Your task to perform on an android device: find photos in the google photos app Image 0: 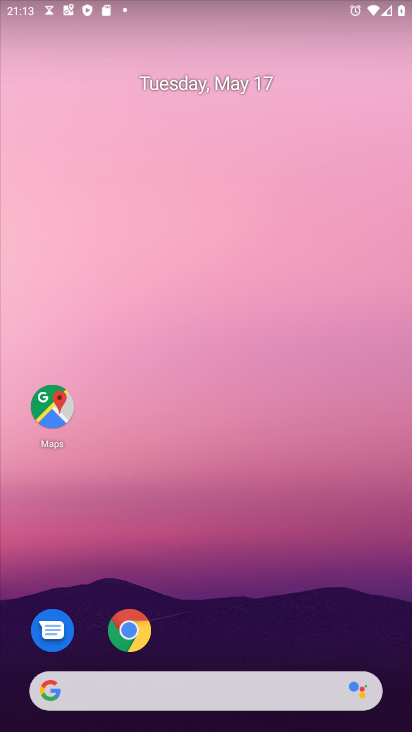
Step 0: drag from (205, 553) to (202, 113)
Your task to perform on an android device: find photos in the google photos app Image 1: 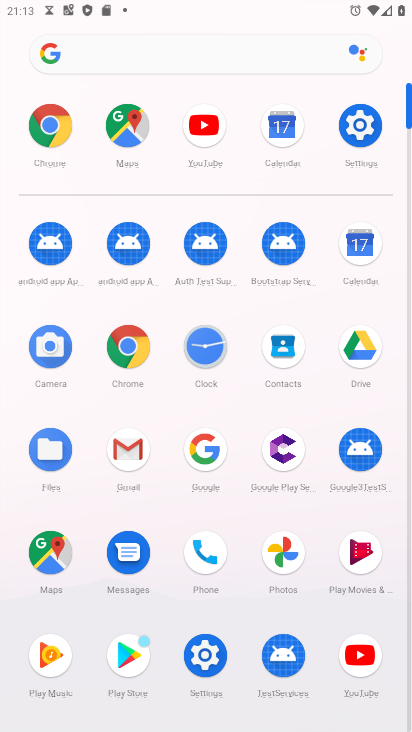
Step 1: click (287, 550)
Your task to perform on an android device: find photos in the google photos app Image 2: 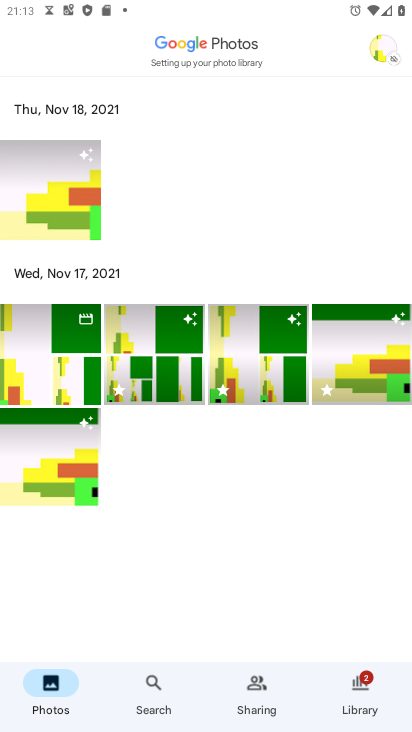
Step 2: task complete